Your task to perform on an android device: Show me popular videos on Youtube Image 0: 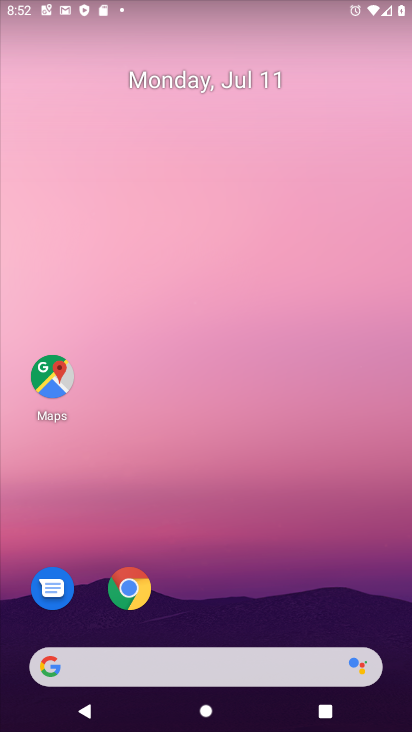
Step 0: drag from (190, 662) to (349, 97)
Your task to perform on an android device: Show me popular videos on Youtube Image 1: 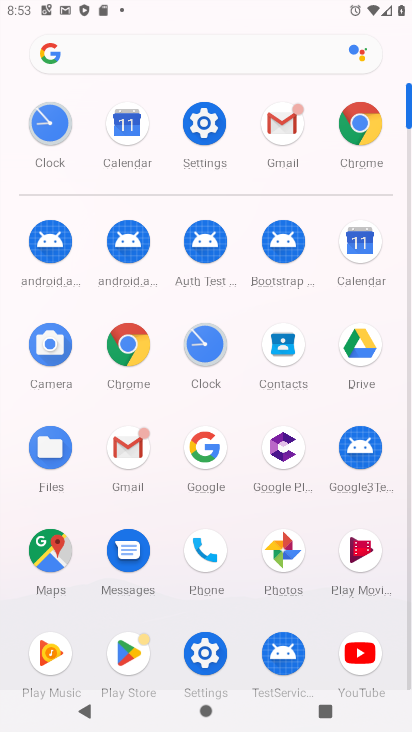
Step 1: click (357, 656)
Your task to perform on an android device: Show me popular videos on Youtube Image 2: 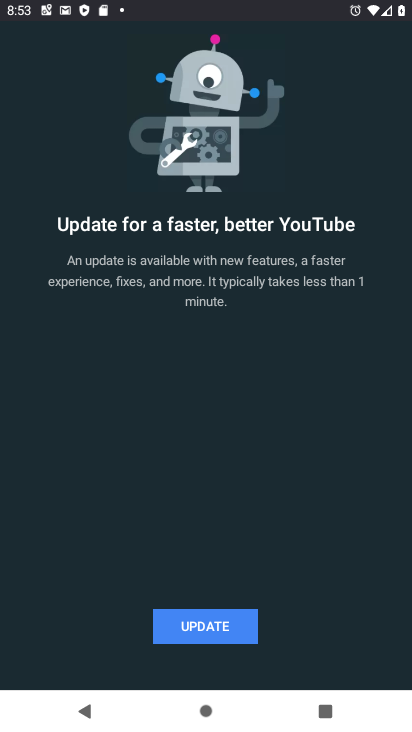
Step 2: click (183, 626)
Your task to perform on an android device: Show me popular videos on Youtube Image 3: 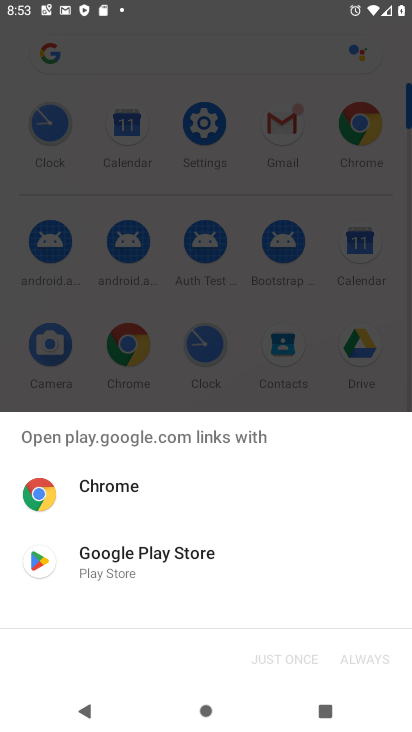
Step 3: click (148, 568)
Your task to perform on an android device: Show me popular videos on Youtube Image 4: 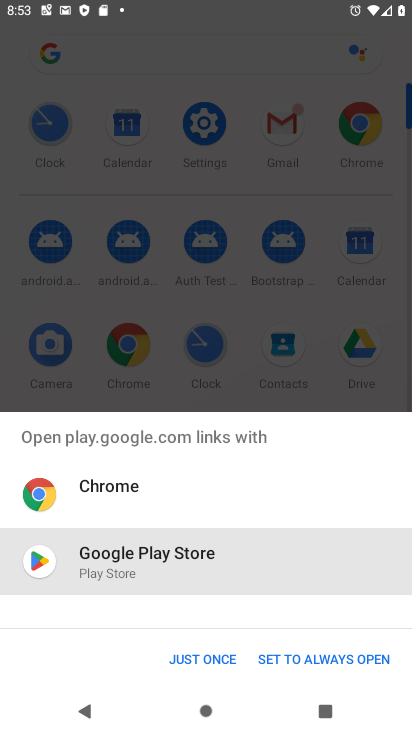
Step 4: click (221, 660)
Your task to perform on an android device: Show me popular videos on Youtube Image 5: 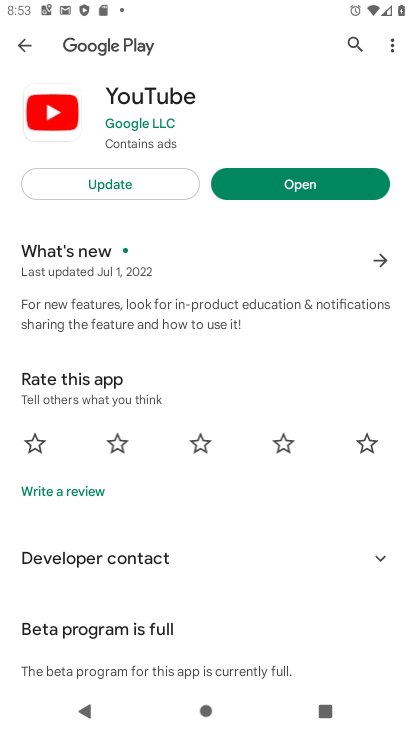
Step 5: click (126, 178)
Your task to perform on an android device: Show me popular videos on Youtube Image 6: 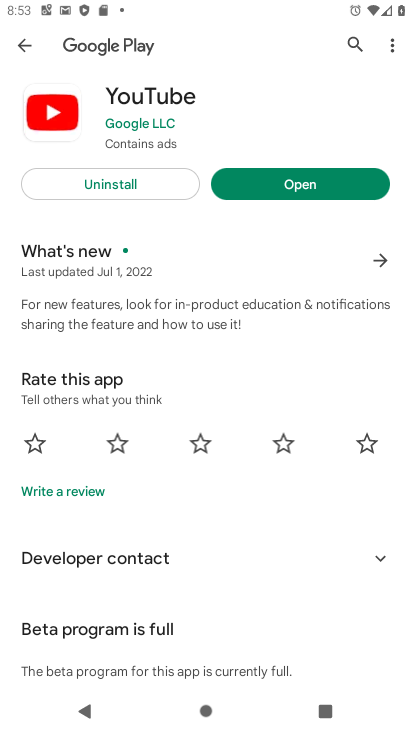
Step 6: click (331, 178)
Your task to perform on an android device: Show me popular videos on Youtube Image 7: 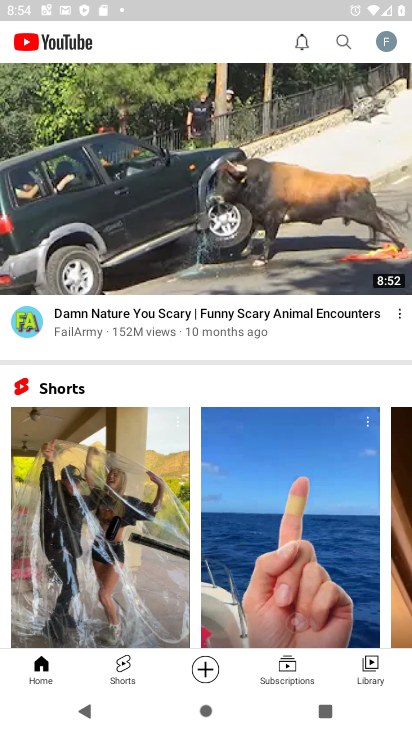
Step 7: task complete